Your task to perform on an android device: Show me the alarms in the clock app Image 0: 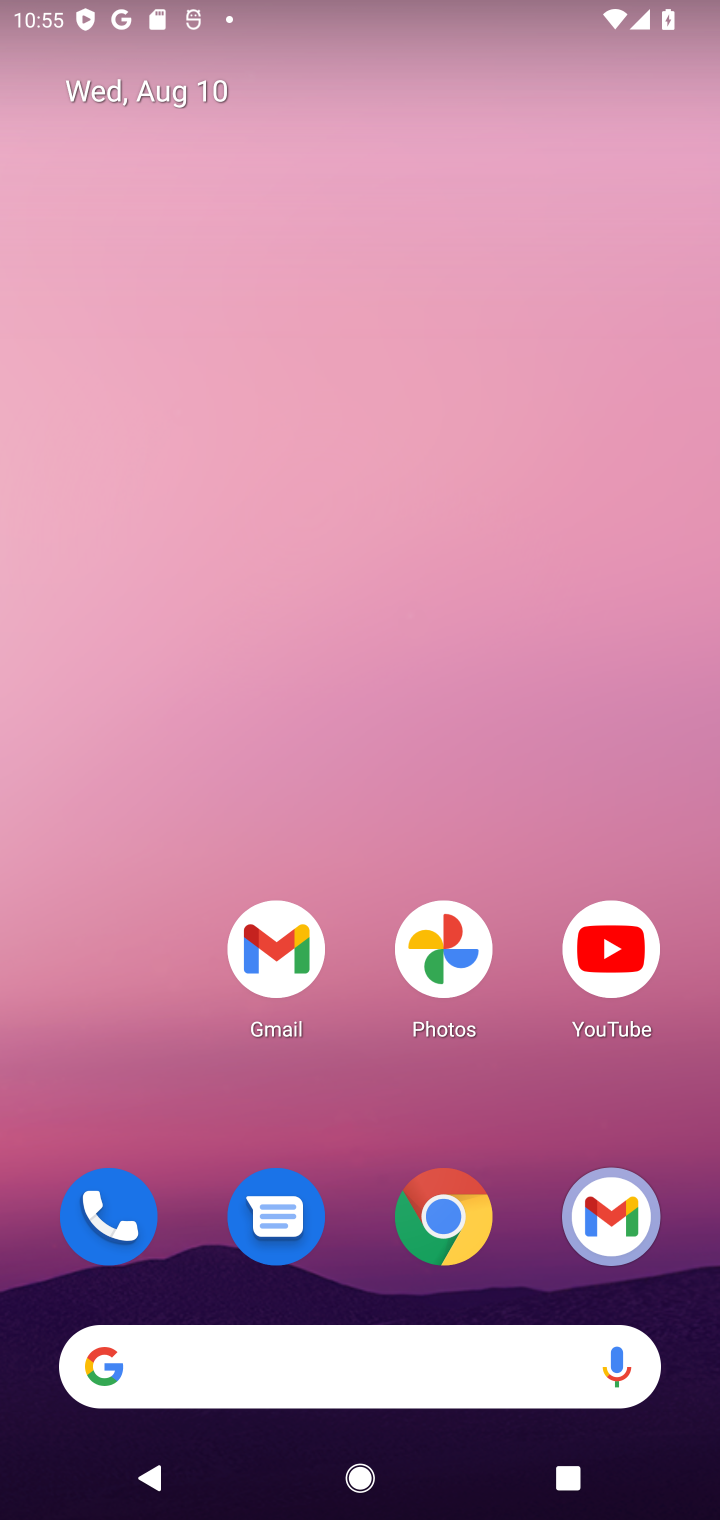
Step 0: drag from (127, 989) to (495, 243)
Your task to perform on an android device: Show me the alarms in the clock app Image 1: 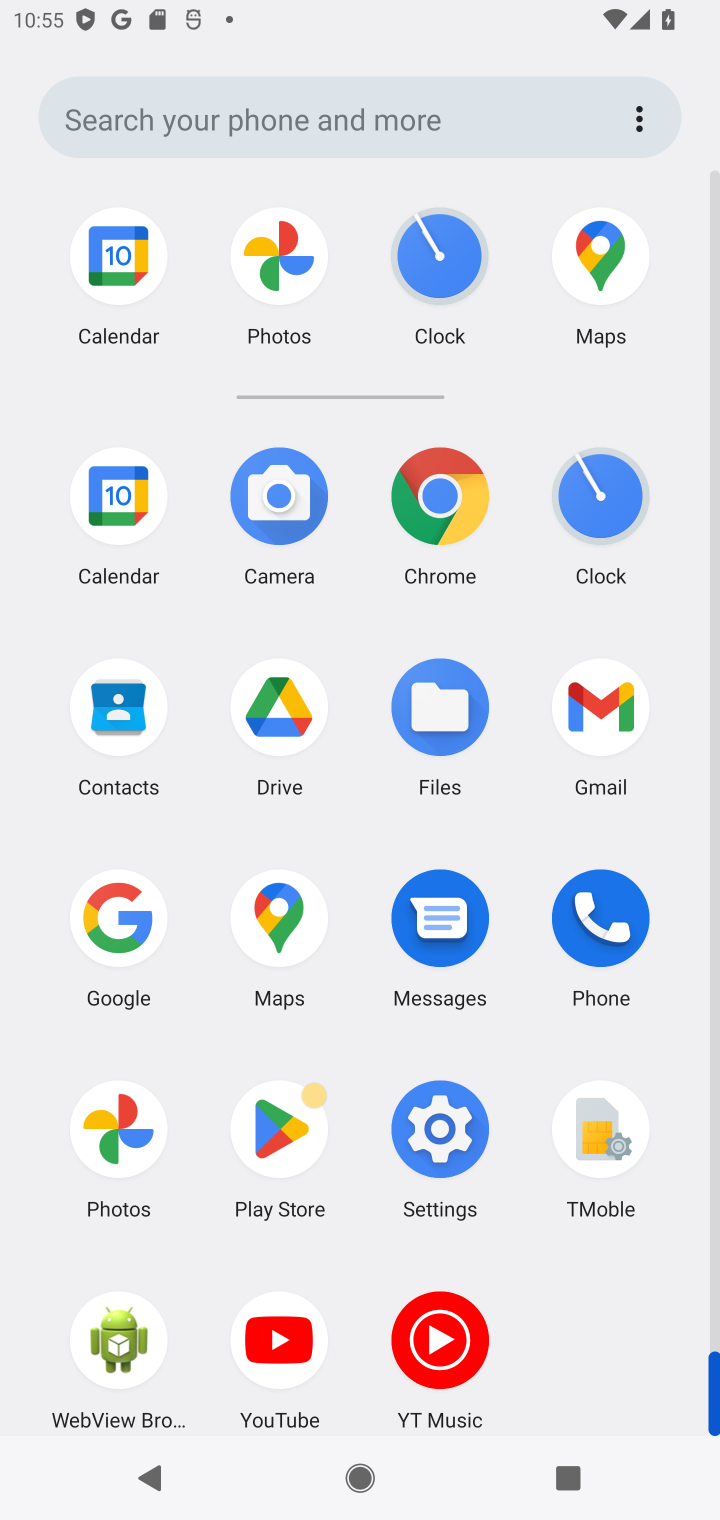
Step 1: click (414, 282)
Your task to perform on an android device: Show me the alarms in the clock app Image 2: 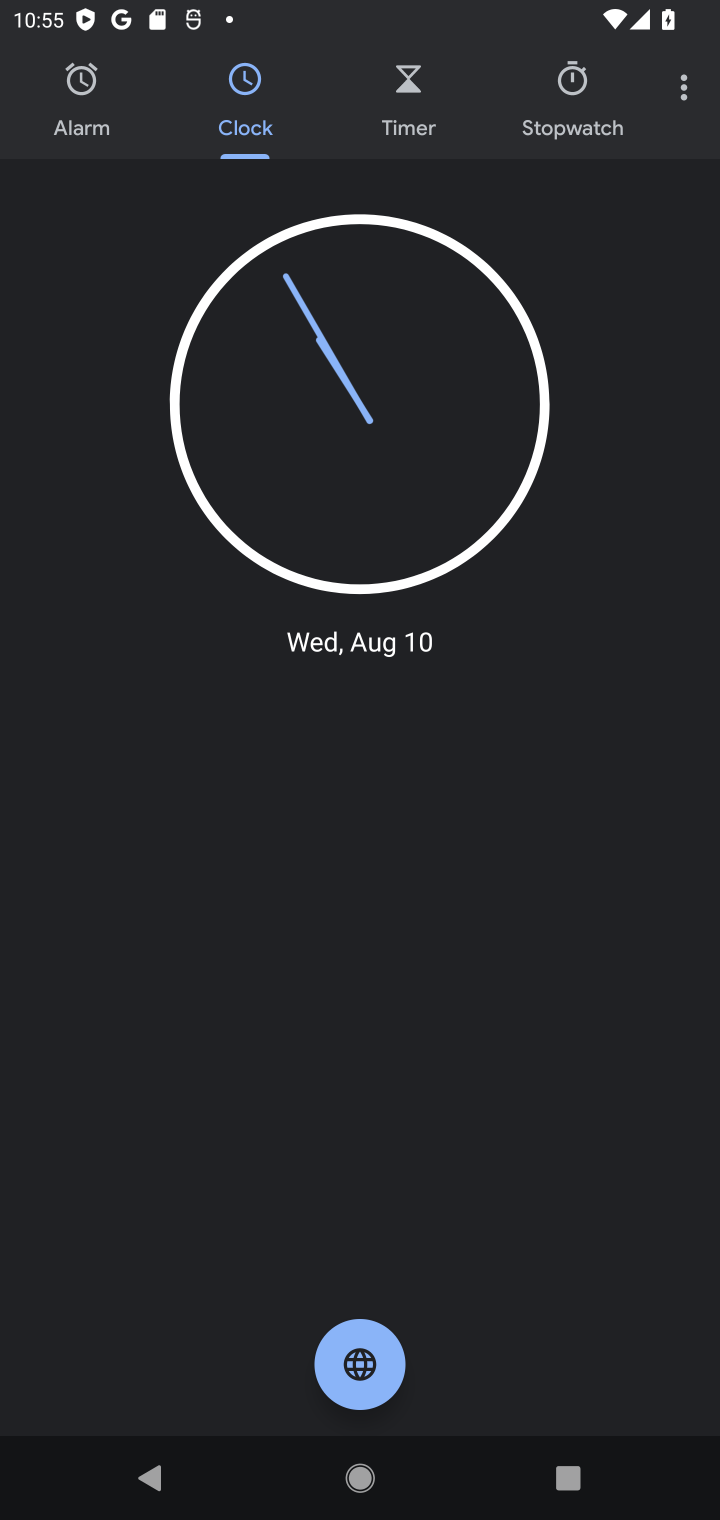
Step 2: click (79, 102)
Your task to perform on an android device: Show me the alarms in the clock app Image 3: 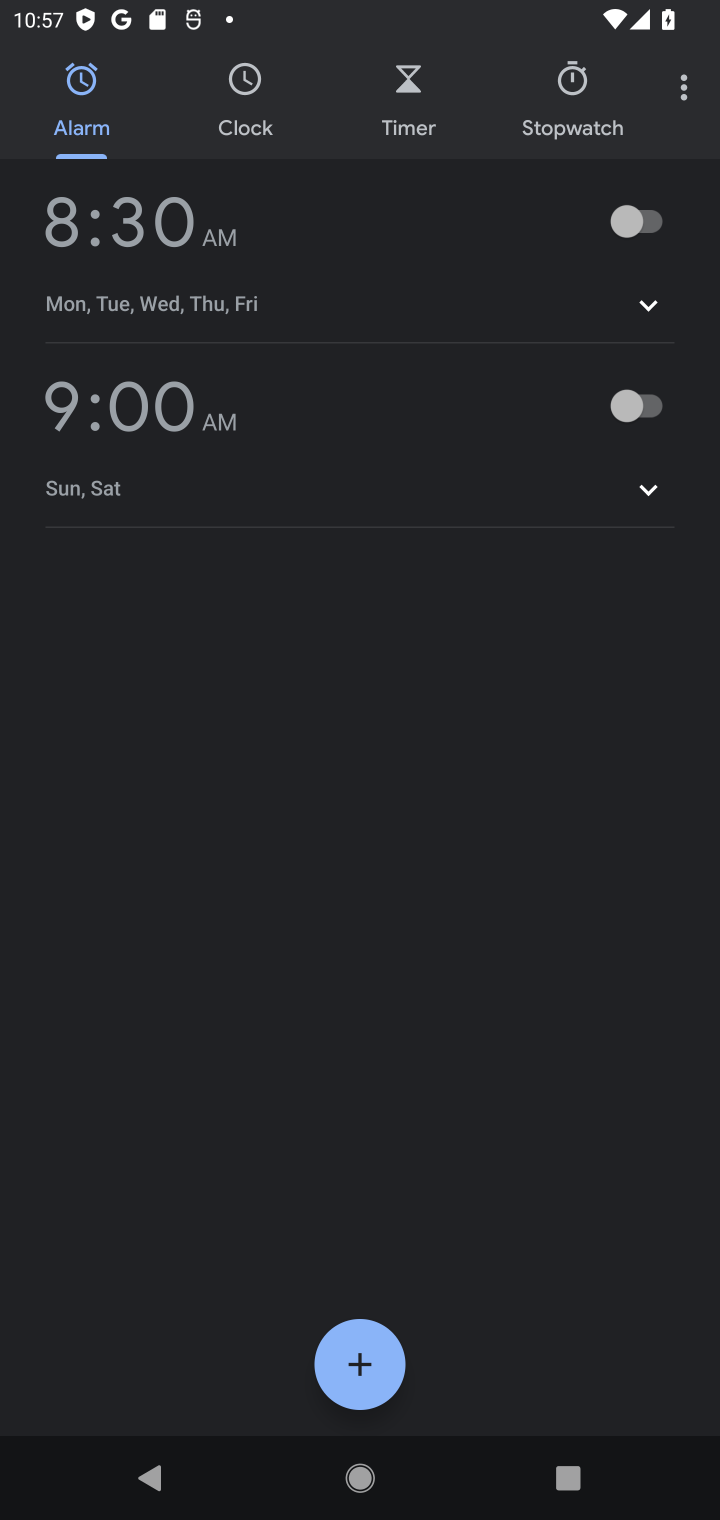
Step 3: task complete